Your task to perform on an android device: turn smart compose on in the gmail app Image 0: 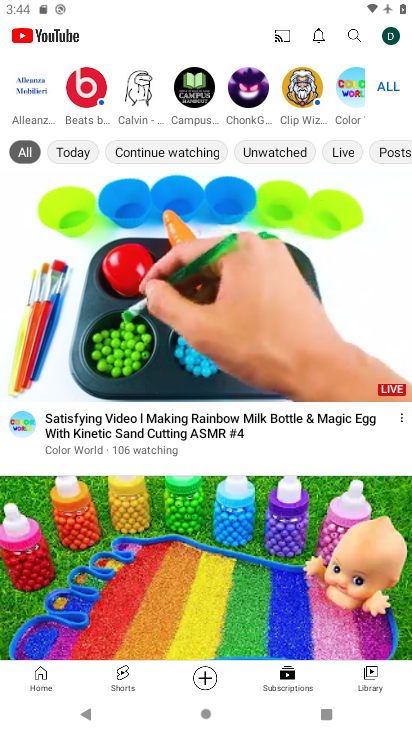
Step 0: press home button
Your task to perform on an android device: turn smart compose on in the gmail app Image 1: 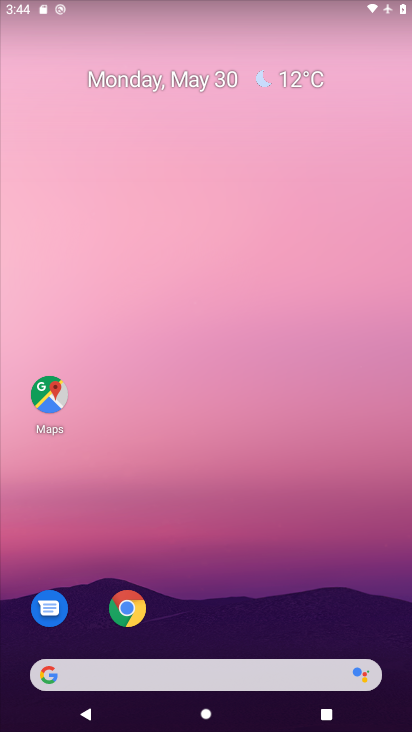
Step 1: drag from (263, 612) to (116, 35)
Your task to perform on an android device: turn smart compose on in the gmail app Image 2: 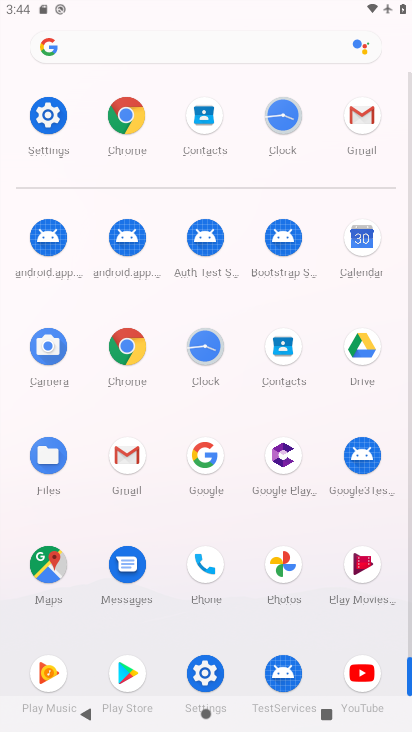
Step 2: click (131, 463)
Your task to perform on an android device: turn smart compose on in the gmail app Image 3: 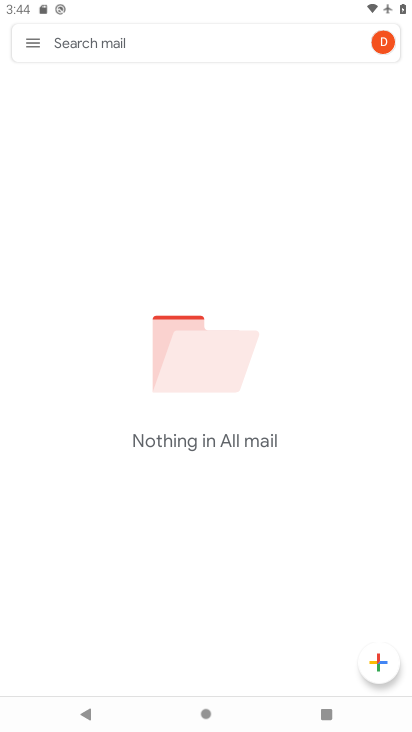
Step 3: click (33, 48)
Your task to perform on an android device: turn smart compose on in the gmail app Image 4: 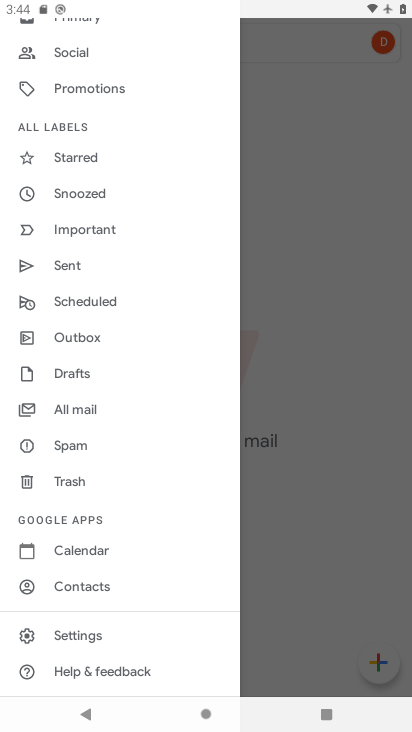
Step 4: click (93, 632)
Your task to perform on an android device: turn smart compose on in the gmail app Image 5: 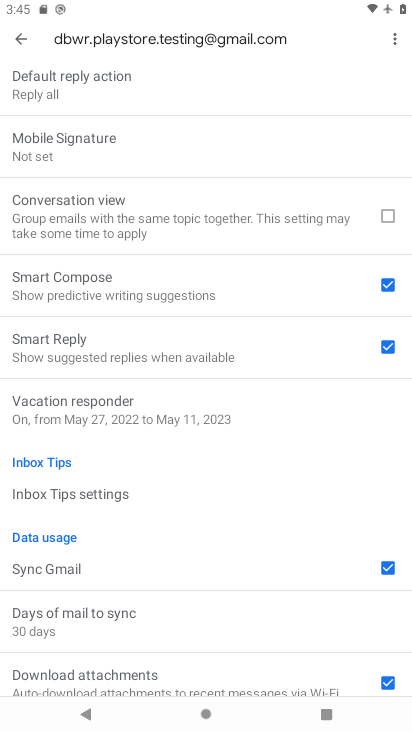
Step 5: task complete